Your task to perform on an android device: Search for pizza restaurants on Maps Image 0: 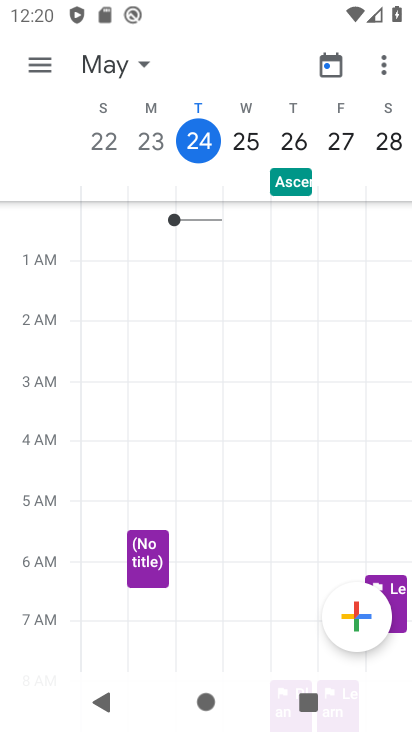
Step 0: press home button
Your task to perform on an android device: Search for pizza restaurants on Maps Image 1: 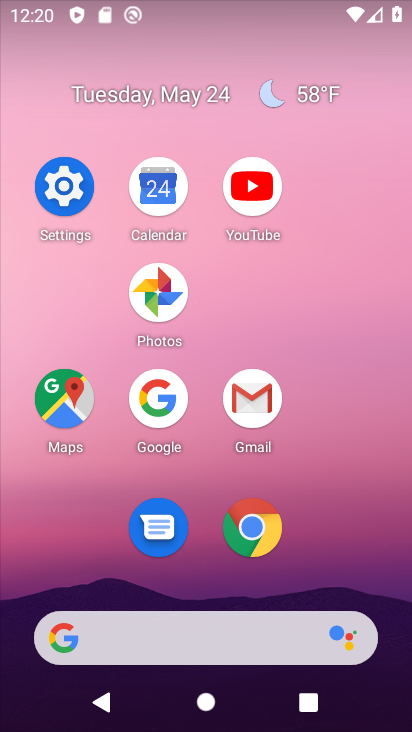
Step 1: click (84, 404)
Your task to perform on an android device: Search for pizza restaurants on Maps Image 2: 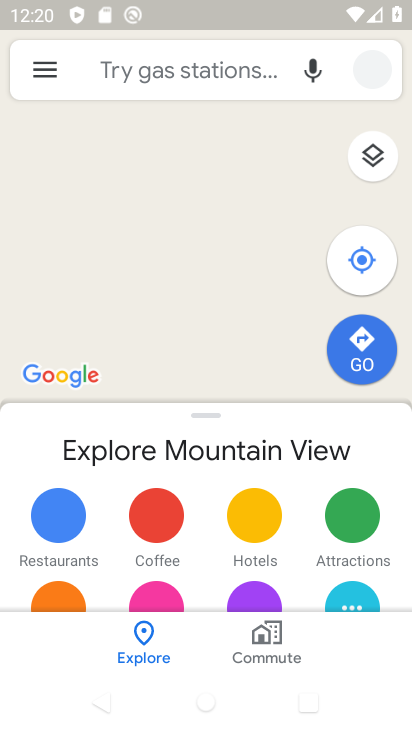
Step 2: click (176, 69)
Your task to perform on an android device: Search for pizza restaurants on Maps Image 3: 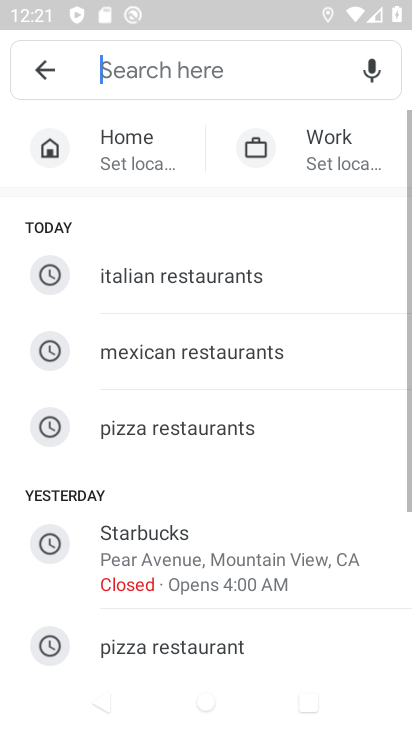
Step 3: click (223, 73)
Your task to perform on an android device: Search for pizza restaurants on Maps Image 4: 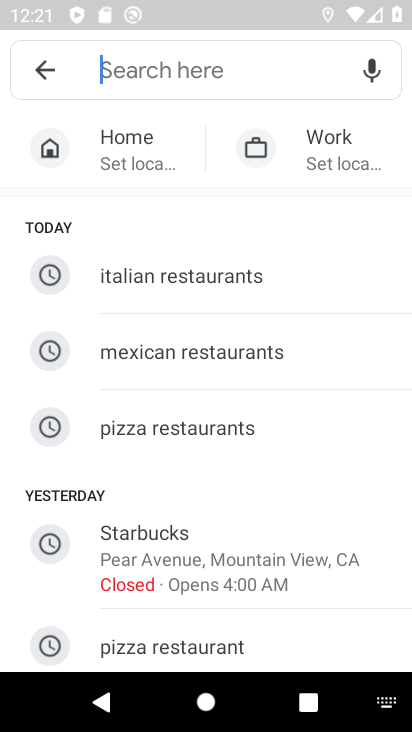
Step 4: click (241, 421)
Your task to perform on an android device: Search for pizza restaurants on Maps Image 5: 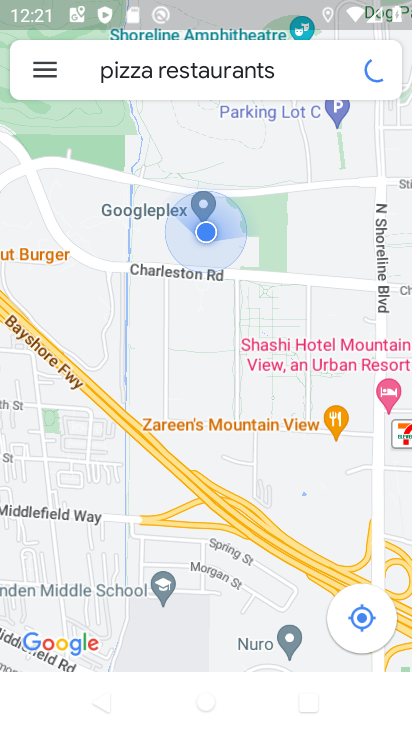
Step 5: task complete